Your task to perform on an android device: choose inbox layout in the gmail app Image 0: 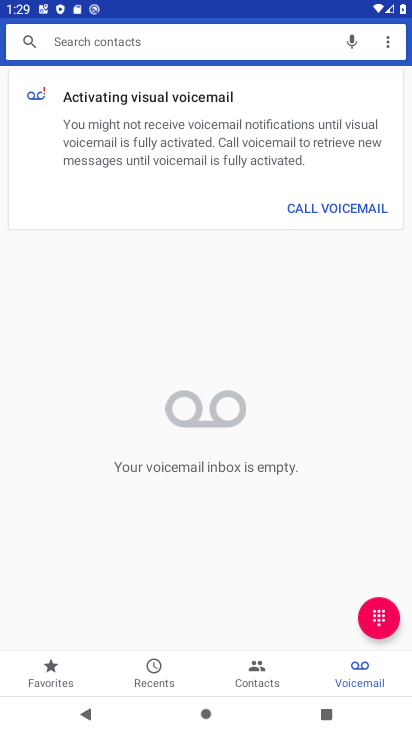
Step 0: press home button
Your task to perform on an android device: choose inbox layout in the gmail app Image 1: 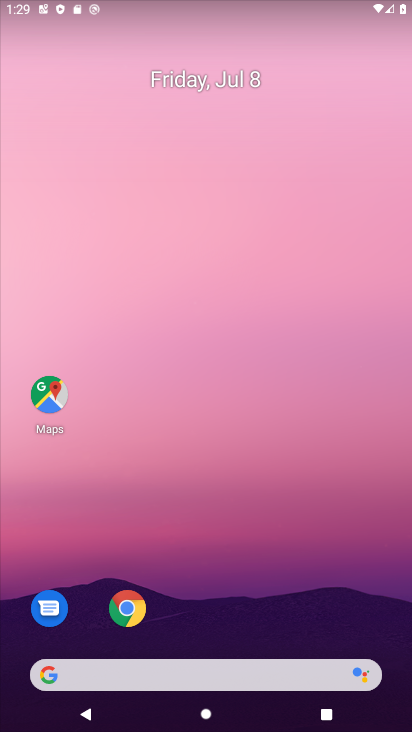
Step 1: drag from (217, 495) to (322, 88)
Your task to perform on an android device: choose inbox layout in the gmail app Image 2: 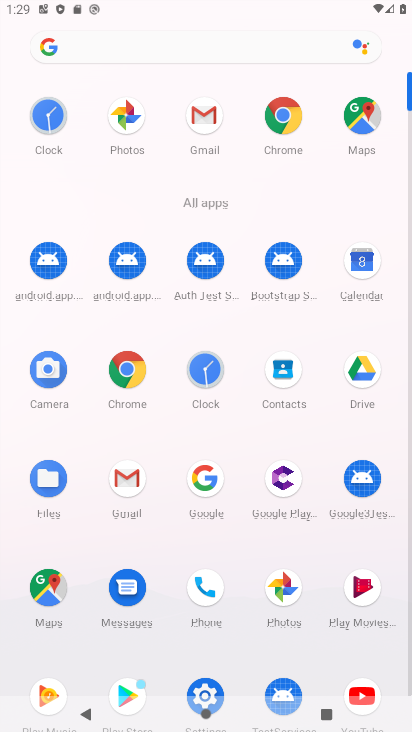
Step 2: click (139, 490)
Your task to perform on an android device: choose inbox layout in the gmail app Image 3: 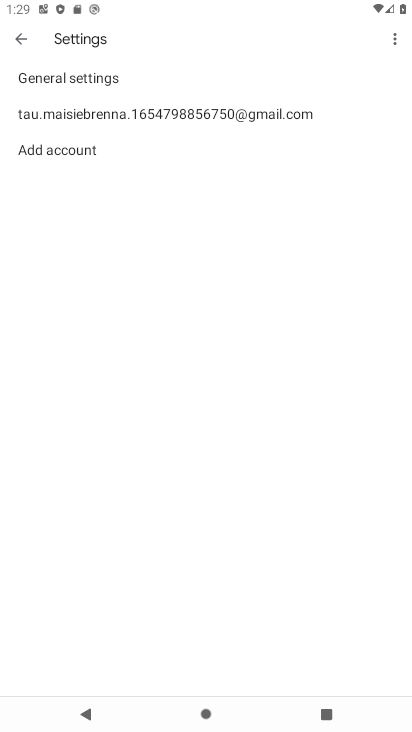
Step 3: click (154, 110)
Your task to perform on an android device: choose inbox layout in the gmail app Image 4: 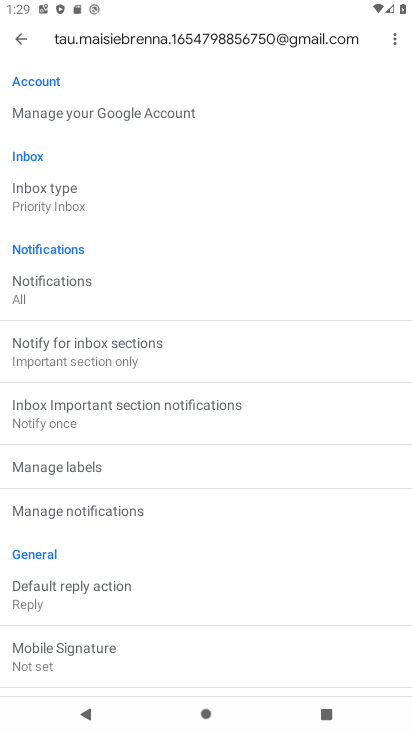
Step 4: click (144, 199)
Your task to perform on an android device: choose inbox layout in the gmail app Image 5: 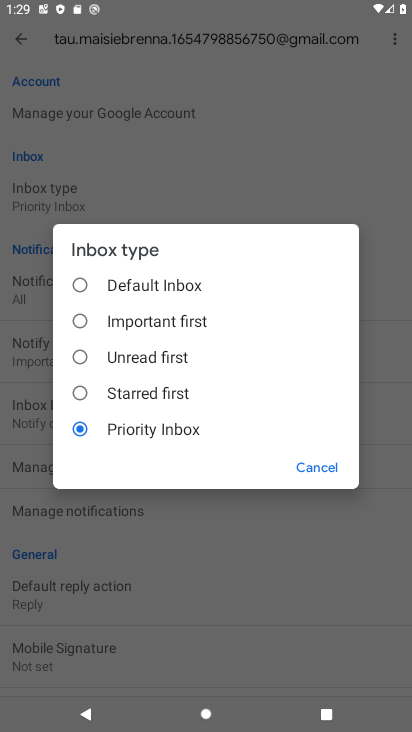
Step 5: click (172, 288)
Your task to perform on an android device: choose inbox layout in the gmail app Image 6: 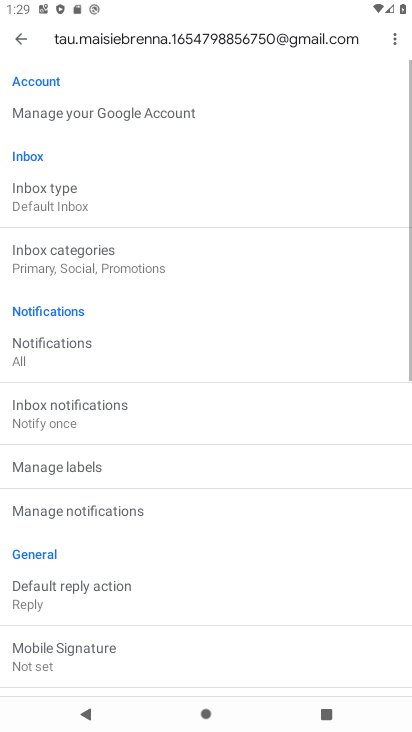
Step 6: task complete